Your task to perform on an android device: install app "DoorDash - Dasher" Image 0: 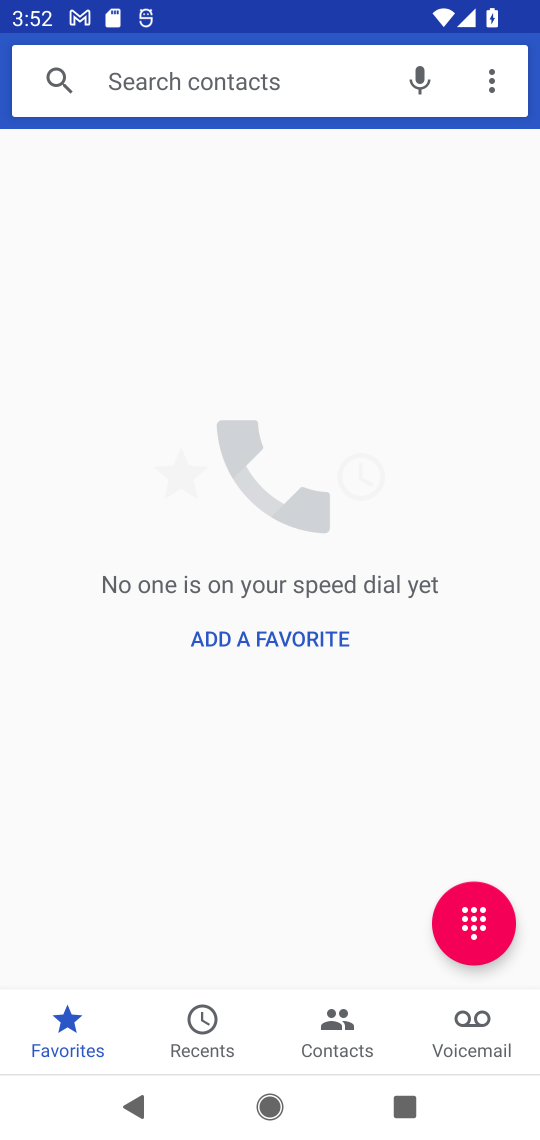
Step 0: press home button
Your task to perform on an android device: install app "DoorDash - Dasher" Image 1: 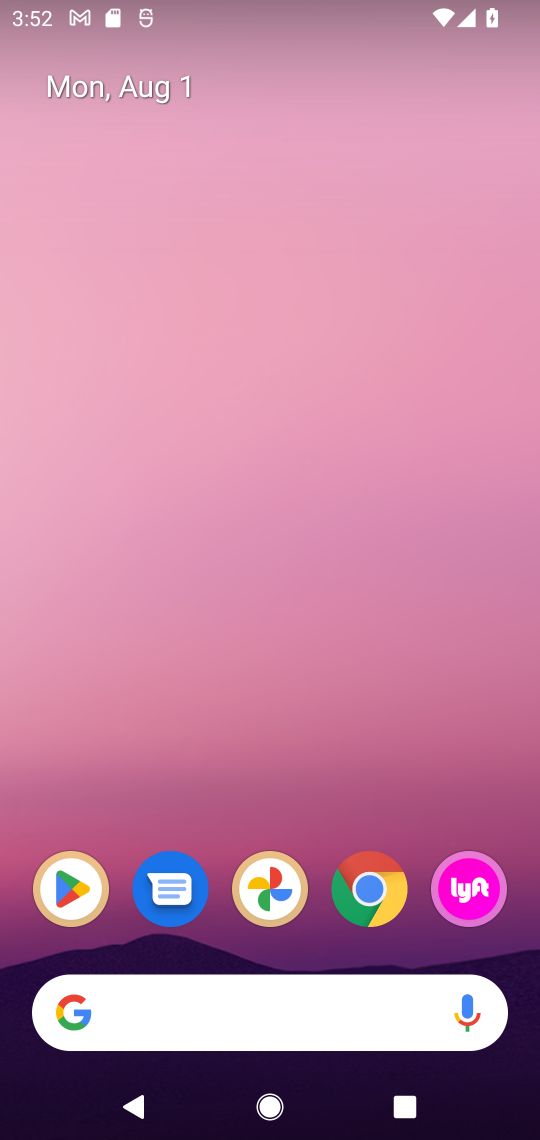
Step 1: click (44, 919)
Your task to perform on an android device: install app "DoorDash - Dasher" Image 2: 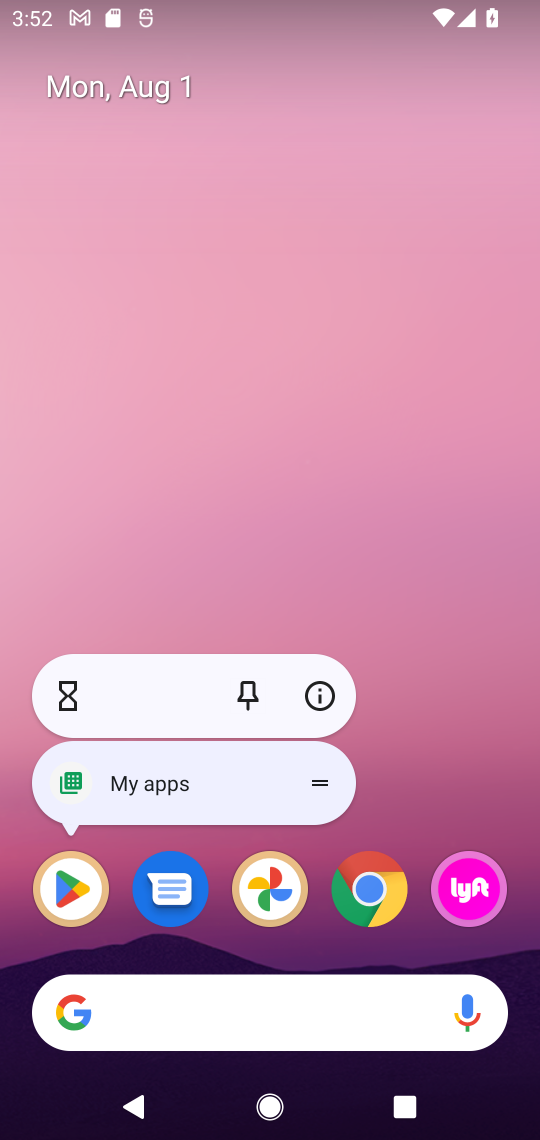
Step 2: click (63, 906)
Your task to perform on an android device: install app "DoorDash - Dasher" Image 3: 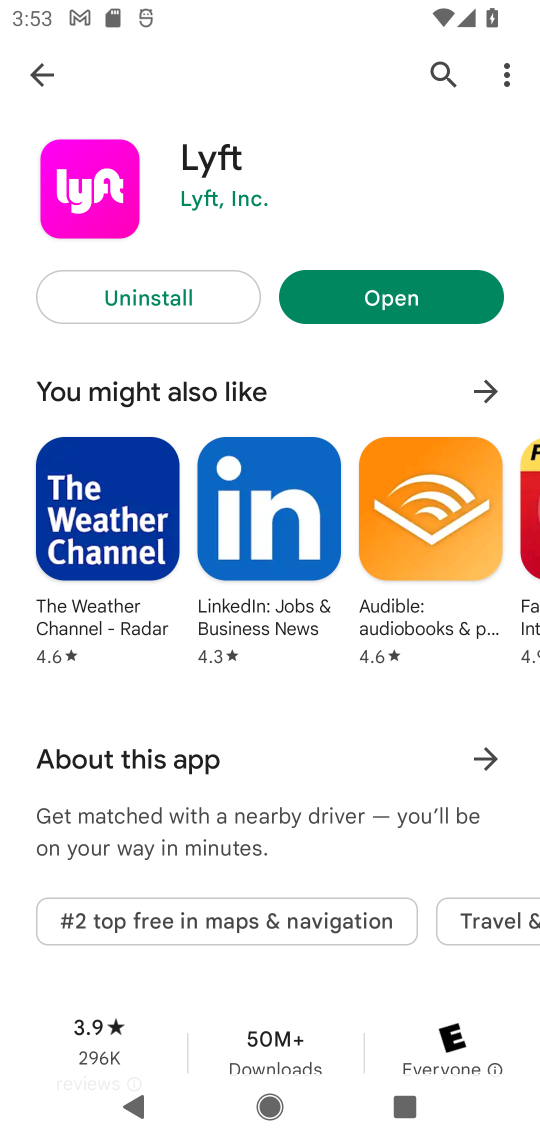
Step 3: click (447, 72)
Your task to perform on an android device: install app "DoorDash - Dasher" Image 4: 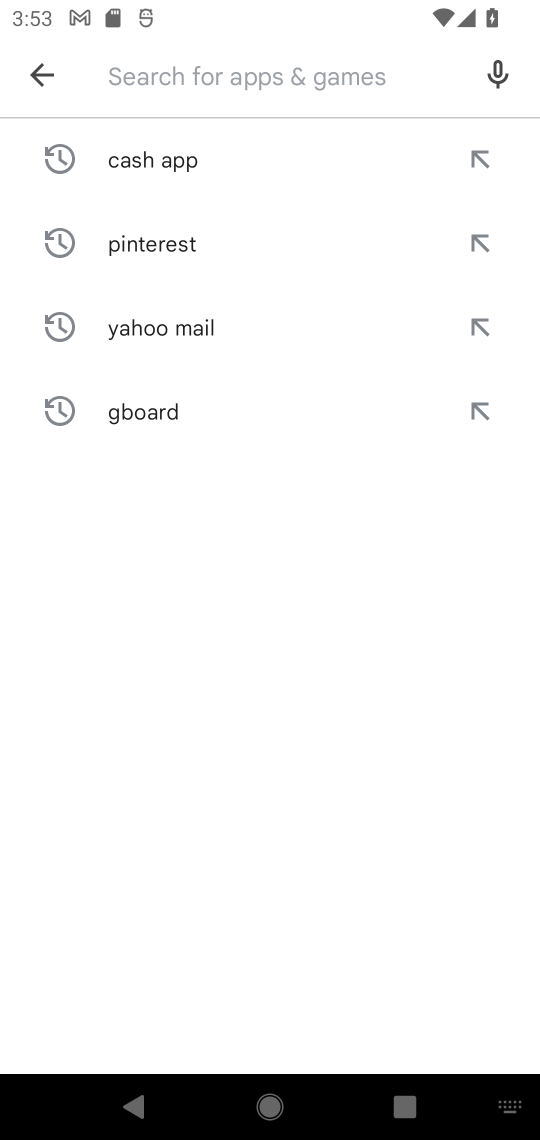
Step 4: type "DoorDash - Dasher"
Your task to perform on an android device: install app "DoorDash - Dasher" Image 5: 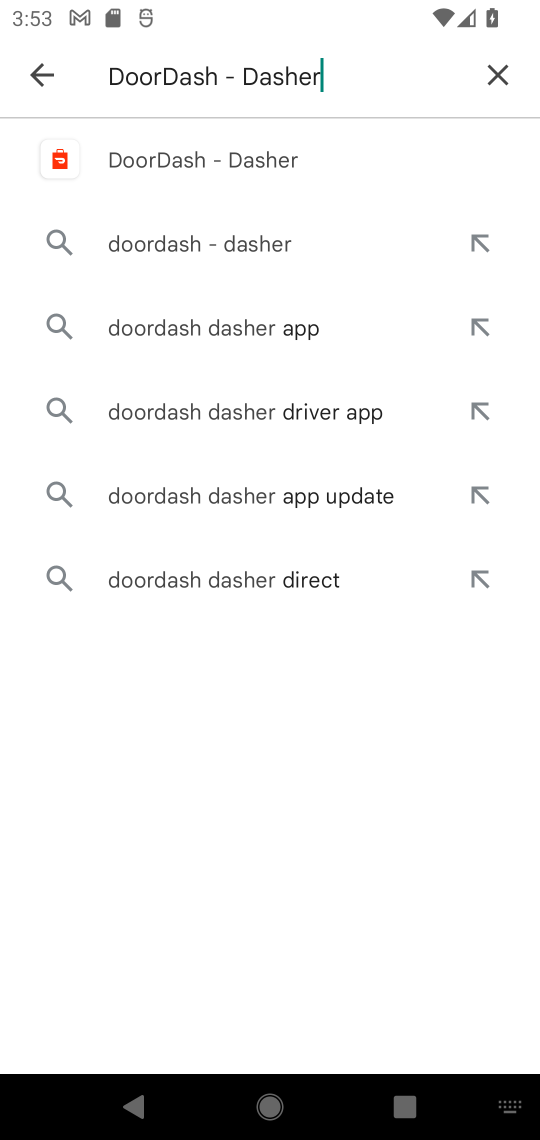
Step 5: click (173, 148)
Your task to perform on an android device: install app "DoorDash - Dasher" Image 6: 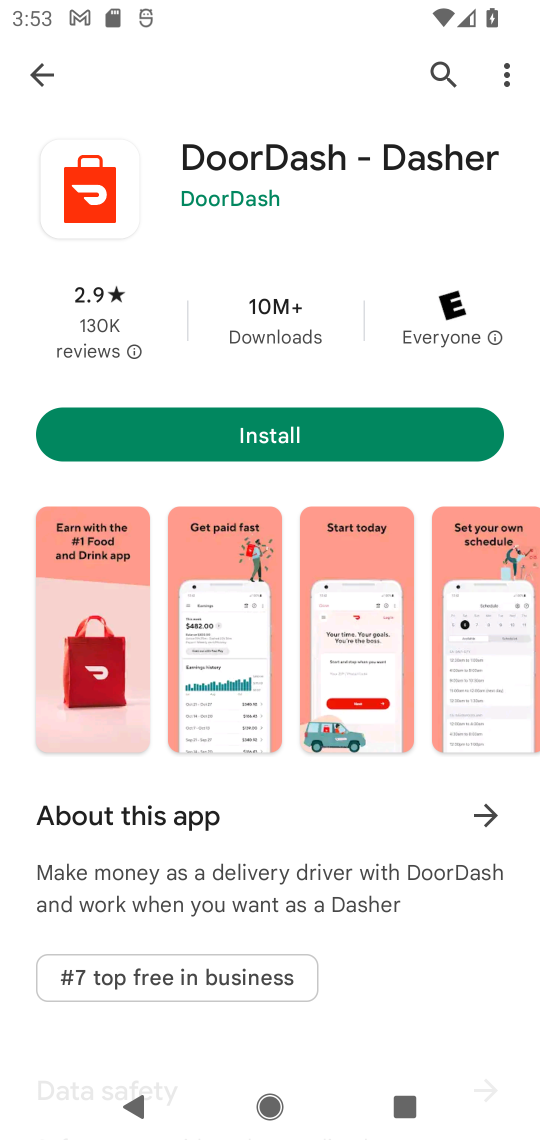
Step 6: click (280, 445)
Your task to perform on an android device: install app "DoorDash - Dasher" Image 7: 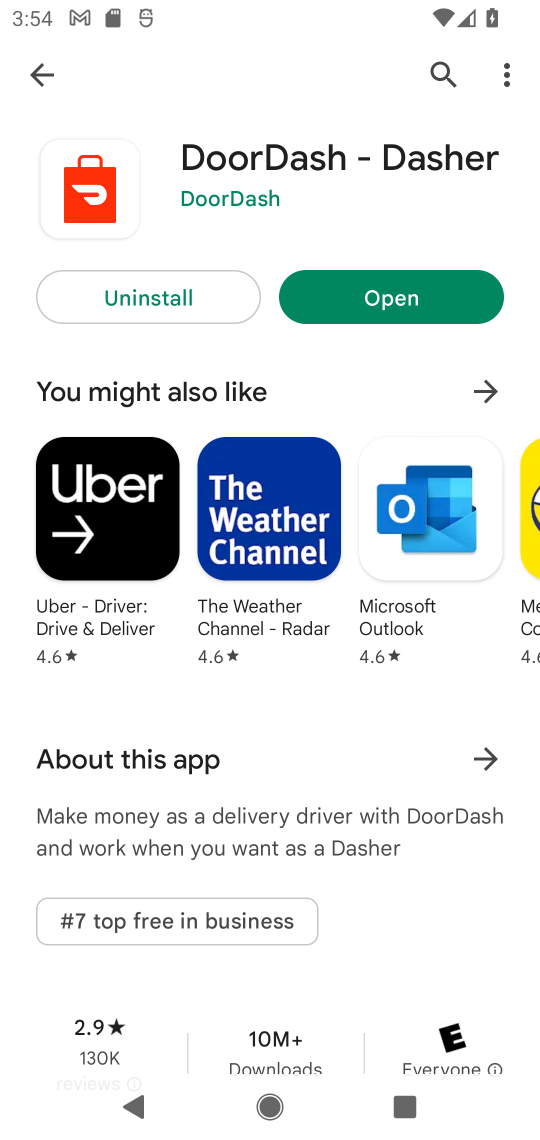
Step 7: task complete